Your task to perform on an android device: Go to Reddit.com Image 0: 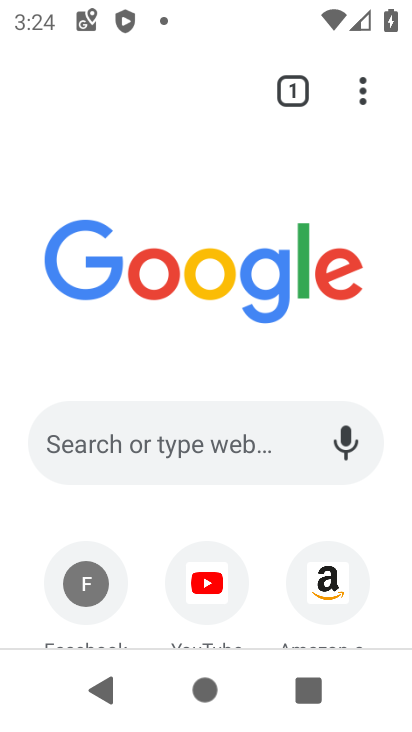
Step 0: click (227, 465)
Your task to perform on an android device: Go to Reddit.com Image 1: 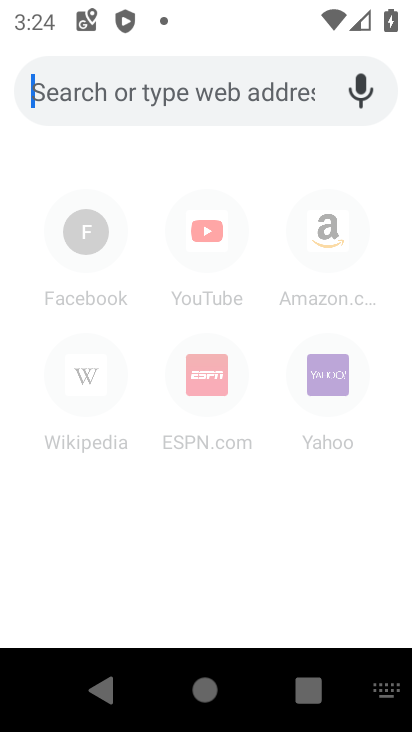
Step 1: type "reddit"
Your task to perform on an android device: Go to Reddit.com Image 2: 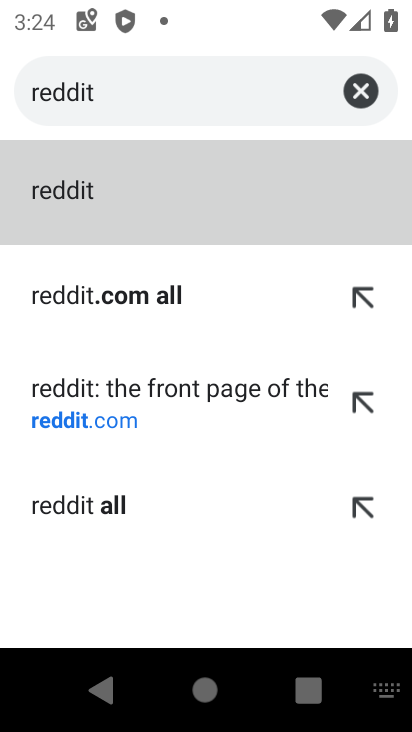
Step 2: click (150, 284)
Your task to perform on an android device: Go to Reddit.com Image 3: 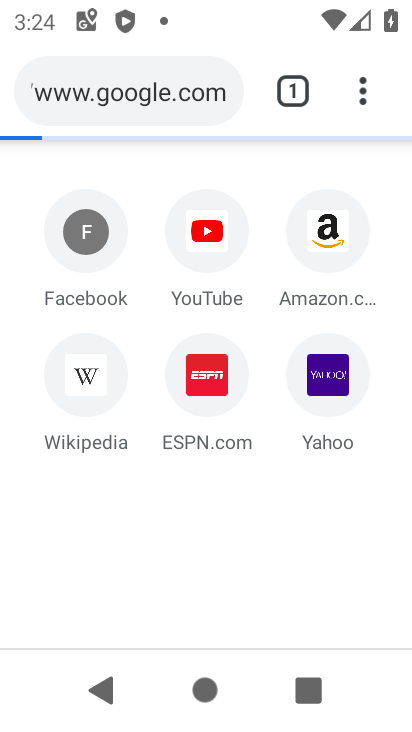
Step 3: task complete